Your task to perform on an android device: remove spam from my inbox in the gmail app Image 0: 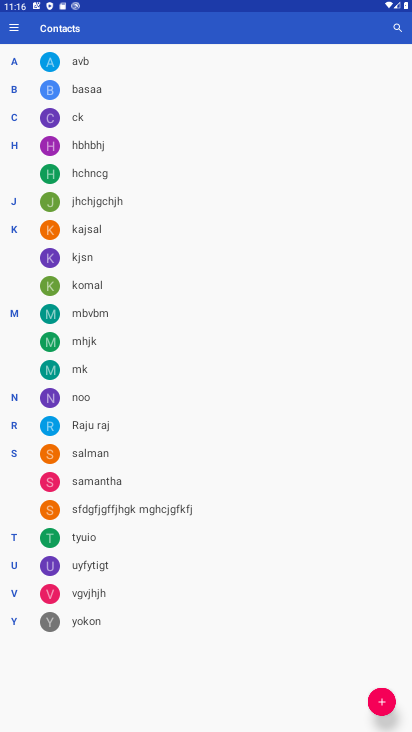
Step 0: press home button
Your task to perform on an android device: remove spam from my inbox in the gmail app Image 1: 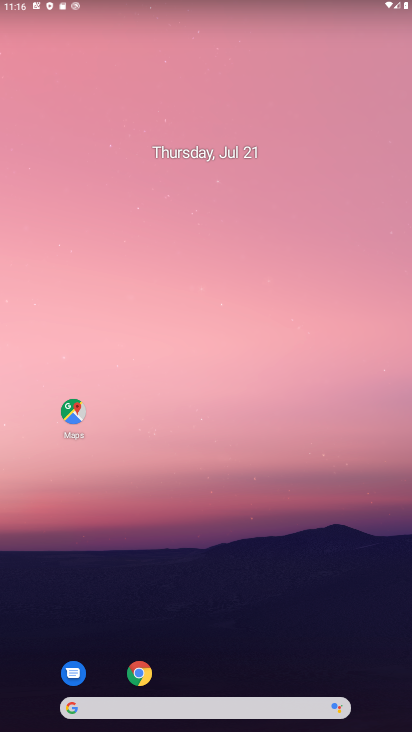
Step 1: drag from (177, 654) to (161, 209)
Your task to perform on an android device: remove spam from my inbox in the gmail app Image 2: 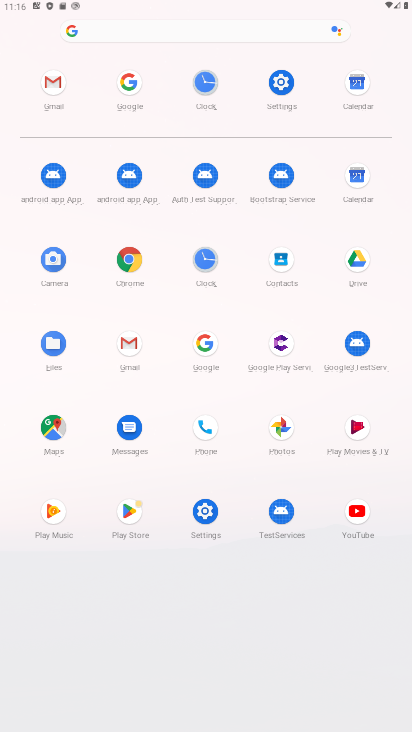
Step 2: click (142, 350)
Your task to perform on an android device: remove spam from my inbox in the gmail app Image 3: 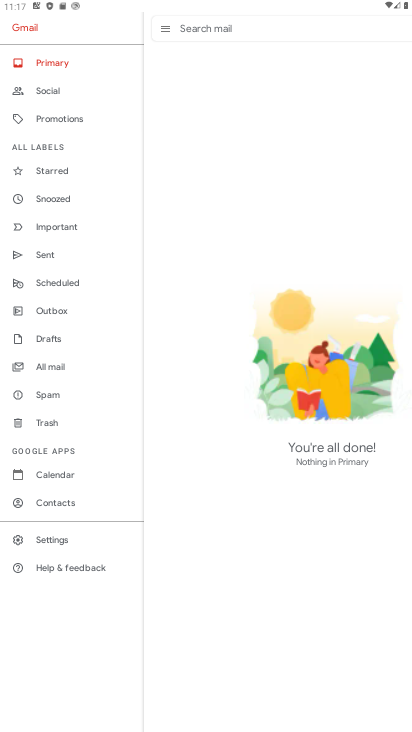
Step 3: click (72, 400)
Your task to perform on an android device: remove spam from my inbox in the gmail app Image 4: 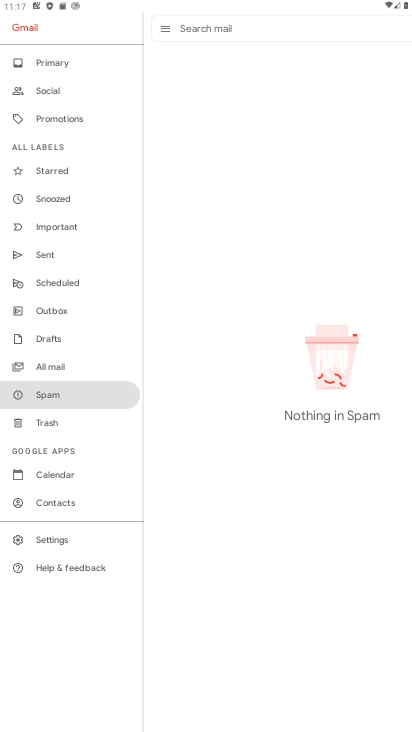
Step 4: task complete